Your task to perform on an android device: Open settings on Google Maps Image 0: 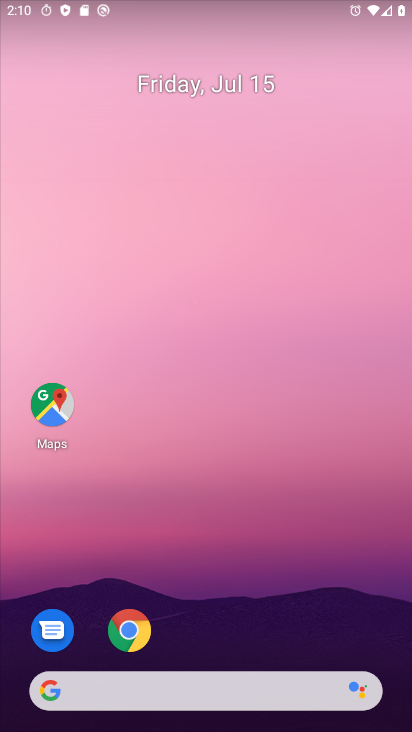
Step 0: click (43, 416)
Your task to perform on an android device: Open settings on Google Maps Image 1: 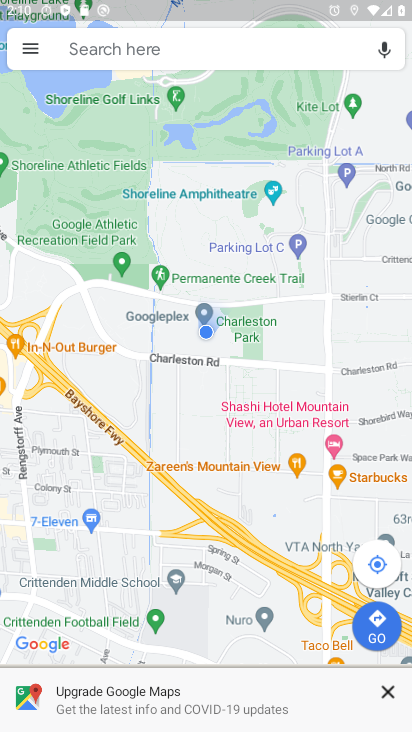
Step 1: click (24, 50)
Your task to perform on an android device: Open settings on Google Maps Image 2: 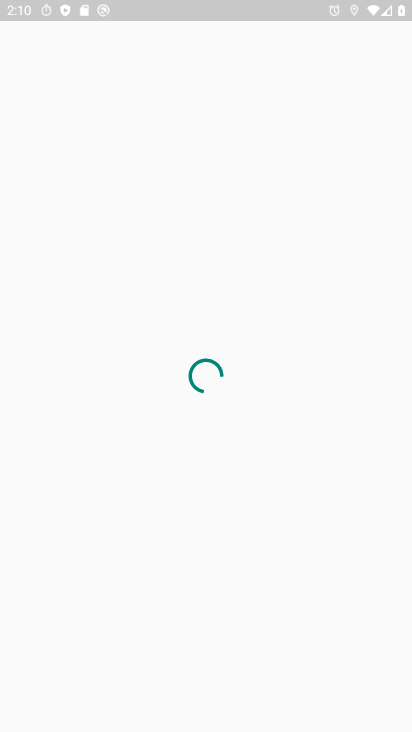
Step 2: drag from (106, 660) to (151, 364)
Your task to perform on an android device: Open settings on Google Maps Image 3: 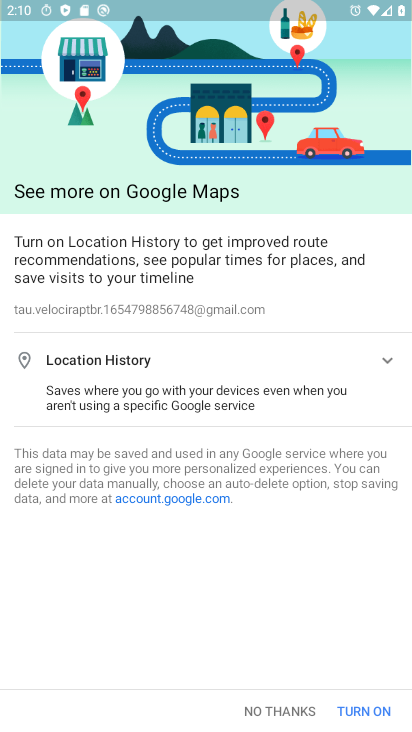
Step 3: click (361, 710)
Your task to perform on an android device: Open settings on Google Maps Image 4: 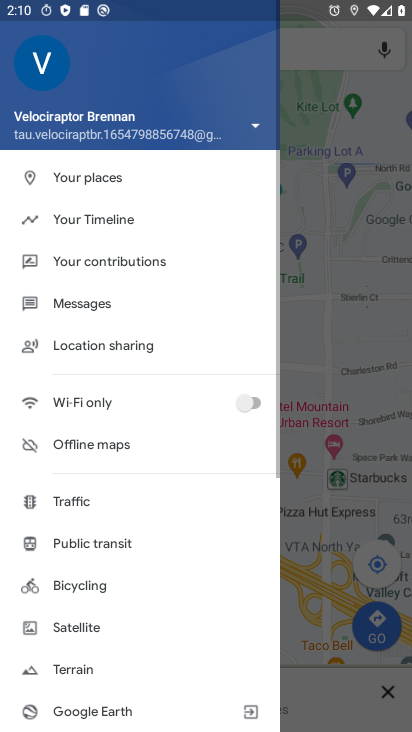
Step 4: drag from (105, 684) to (126, 377)
Your task to perform on an android device: Open settings on Google Maps Image 5: 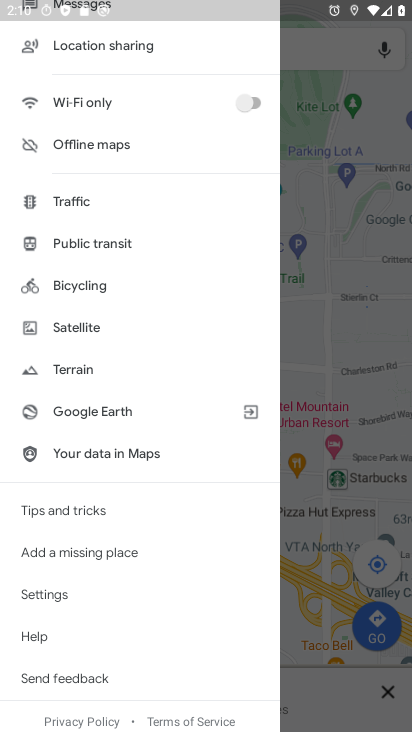
Step 5: click (65, 602)
Your task to perform on an android device: Open settings on Google Maps Image 6: 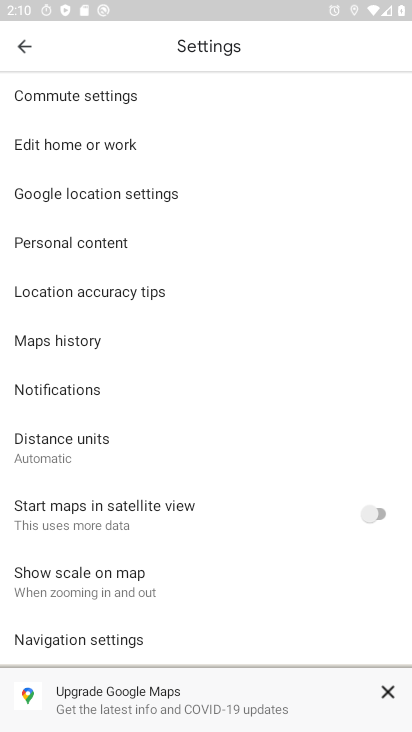
Step 6: task complete